Your task to perform on an android device: Open the calendar app, open the side menu, and click the "Day" option Image 0: 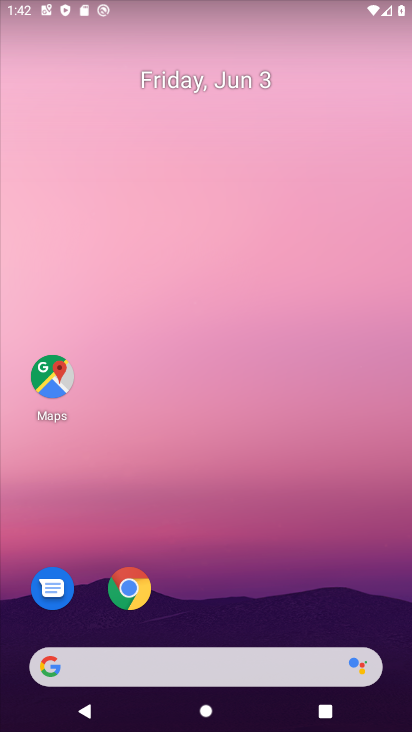
Step 0: drag from (109, 499) to (262, 150)
Your task to perform on an android device: Open the calendar app, open the side menu, and click the "Day" option Image 1: 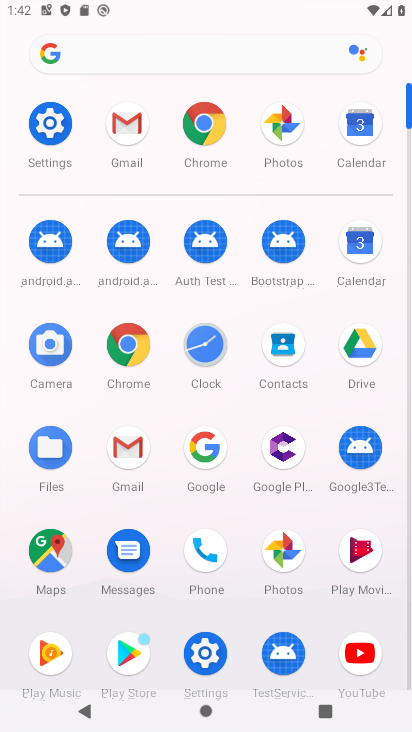
Step 1: click (354, 124)
Your task to perform on an android device: Open the calendar app, open the side menu, and click the "Day" option Image 2: 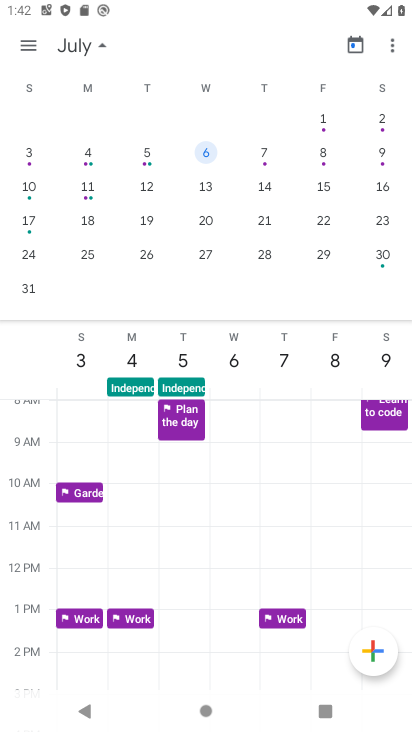
Step 2: click (29, 36)
Your task to perform on an android device: Open the calendar app, open the side menu, and click the "Day" option Image 3: 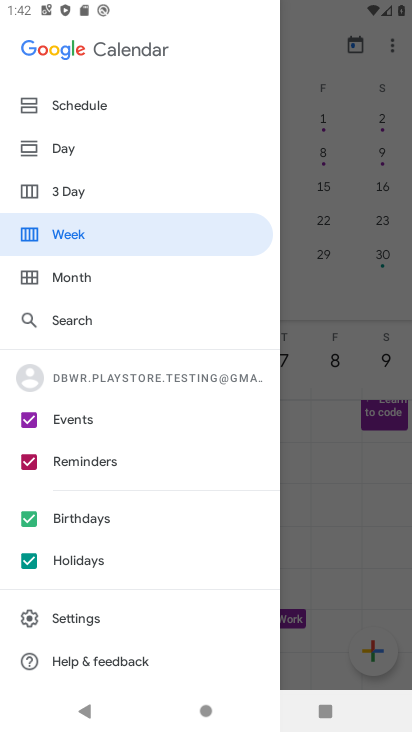
Step 3: click (59, 152)
Your task to perform on an android device: Open the calendar app, open the side menu, and click the "Day" option Image 4: 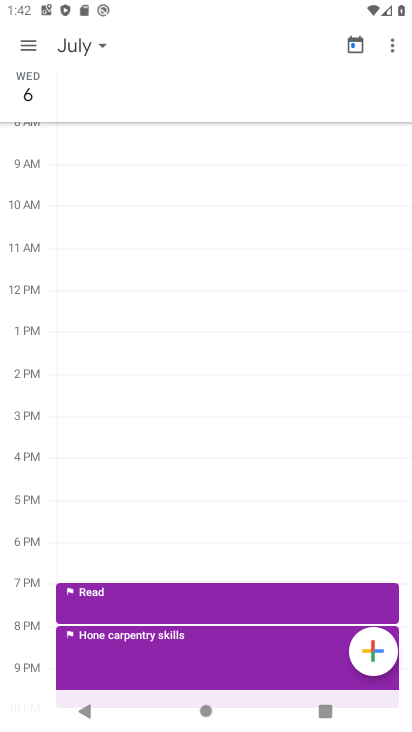
Step 4: task complete